Your task to perform on an android device: turn off smart reply in the gmail app Image 0: 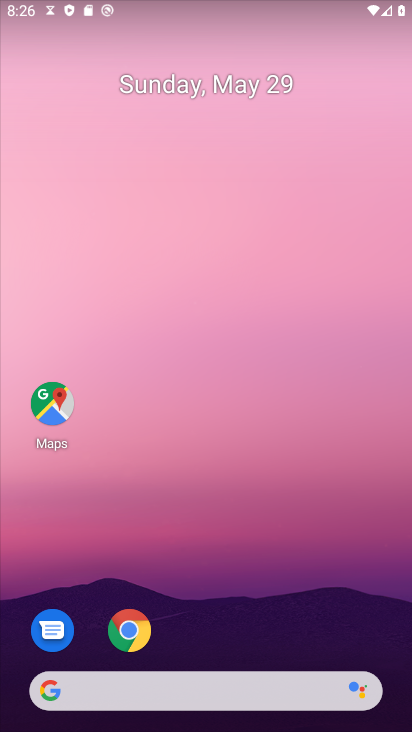
Step 0: drag from (302, 609) to (313, 204)
Your task to perform on an android device: turn off smart reply in the gmail app Image 1: 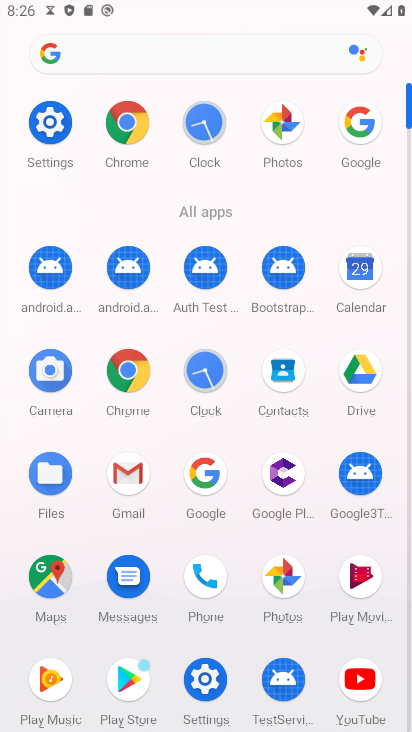
Step 1: click (129, 485)
Your task to perform on an android device: turn off smart reply in the gmail app Image 2: 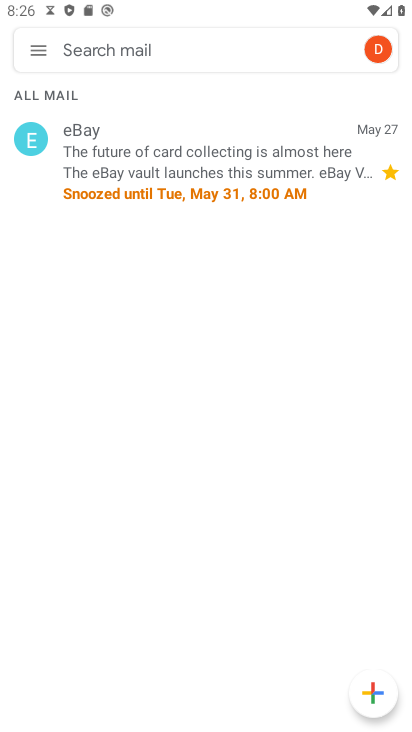
Step 2: click (28, 57)
Your task to perform on an android device: turn off smart reply in the gmail app Image 3: 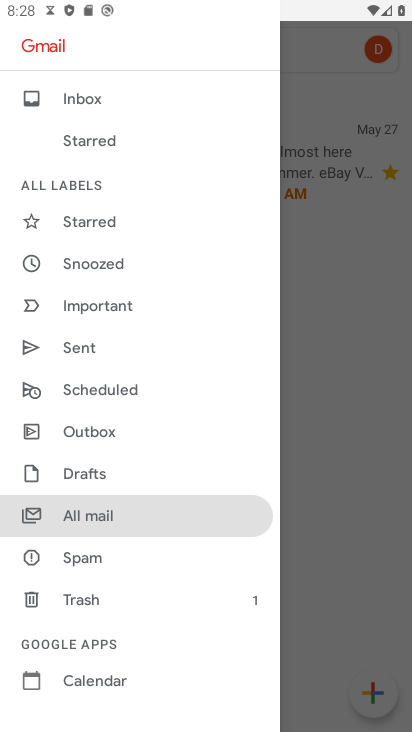
Step 3: drag from (175, 648) to (161, 319)
Your task to perform on an android device: turn off smart reply in the gmail app Image 4: 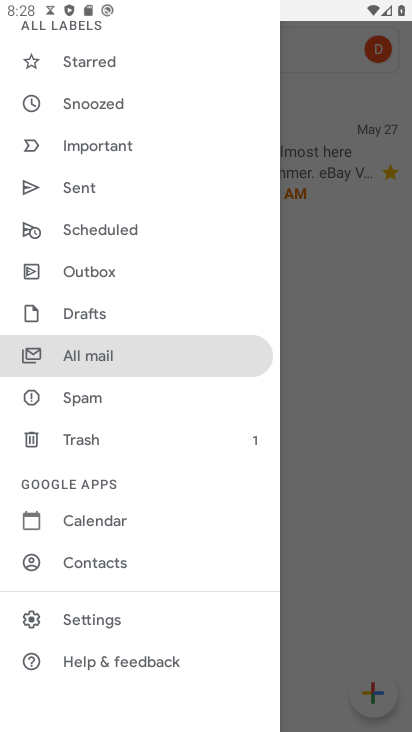
Step 4: click (109, 627)
Your task to perform on an android device: turn off smart reply in the gmail app Image 5: 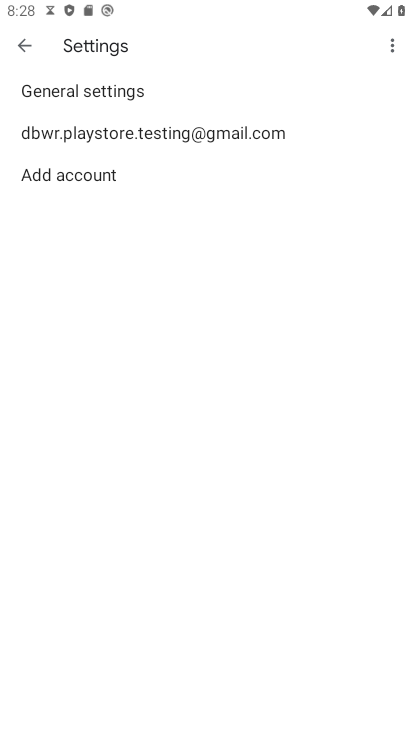
Step 5: click (248, 128)
Your task to perform on an android device: turn off smart reply in the gmail app Image 6: 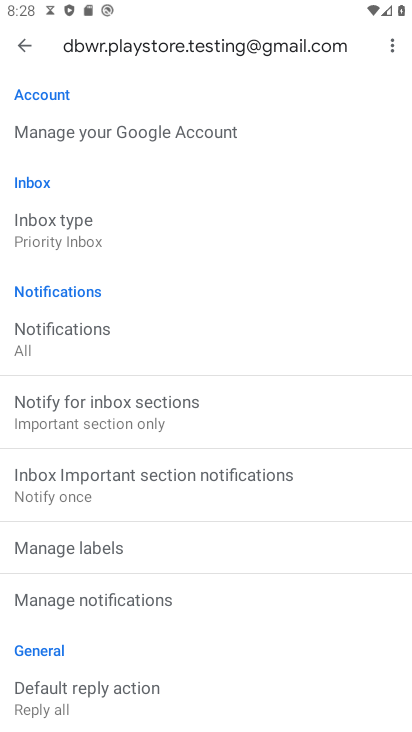
Step 6: drag from (175, 637) to (141, 309)
Your task to perform on an android device: turn off smart reply in the gmail app Image 7: 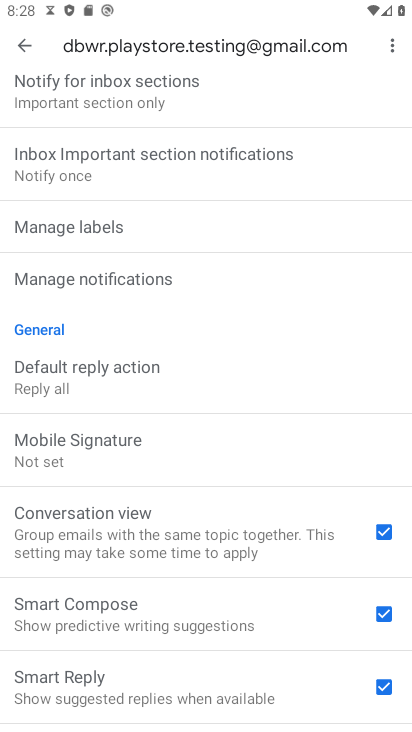
Step 7: click (376, 685)
Your task to perform on an android device: turn off smart reply in the gmail app Image 8: 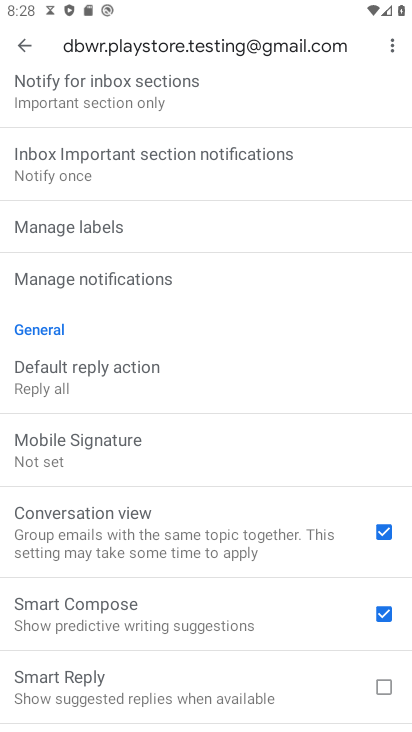
Step 8: task complete